Your task to perform on an android device: Open Chrome and go to the settings page Image 0: 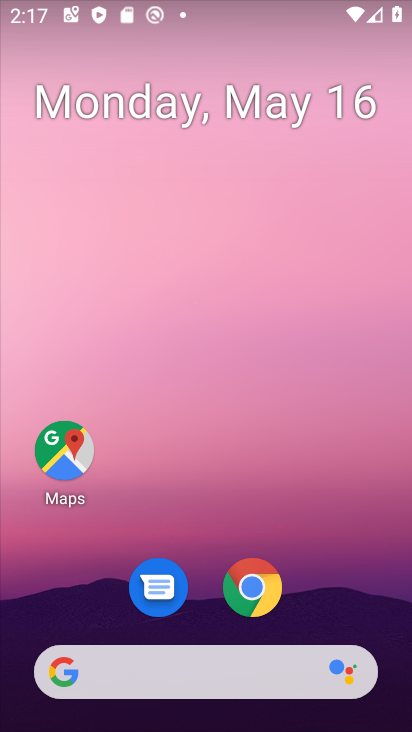
Step 0: drag from (227, 677) to (98, 273)
Your task to perform on an android device: Open Chrome and go to the settings page Image 1: 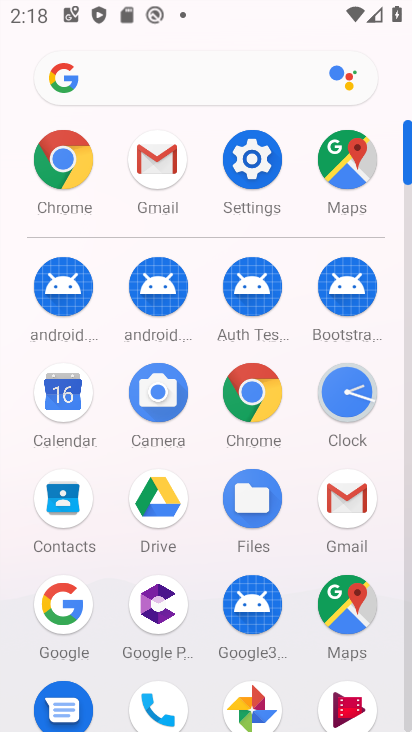
Step 1: click (49, 152)
Your task to perform on an android device: Open Chrome and go to the settings page Image 2: 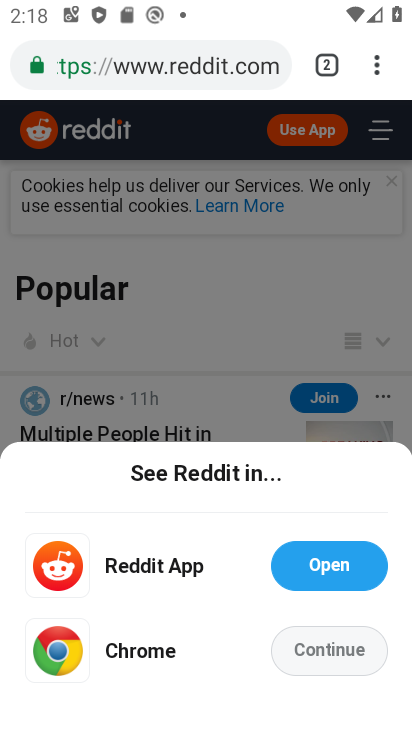
Step 2: click (379, 57)
Your task to perform on an android device: Open Chrome and go to the settings page Image 3: 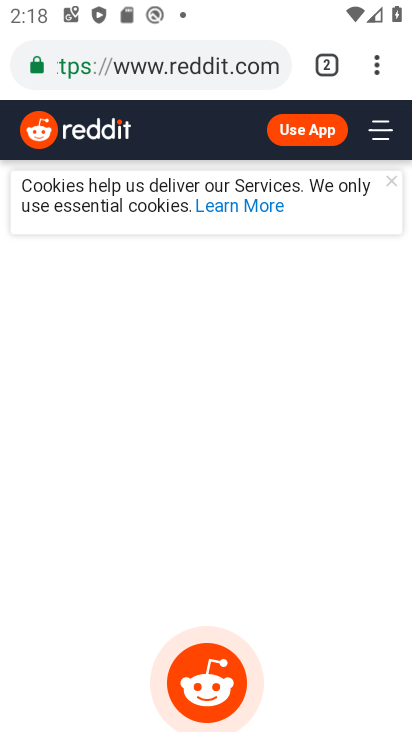
Step 3: press back button
Your task to perform on an android device: Open Chrome and go to the settings page Image 4: 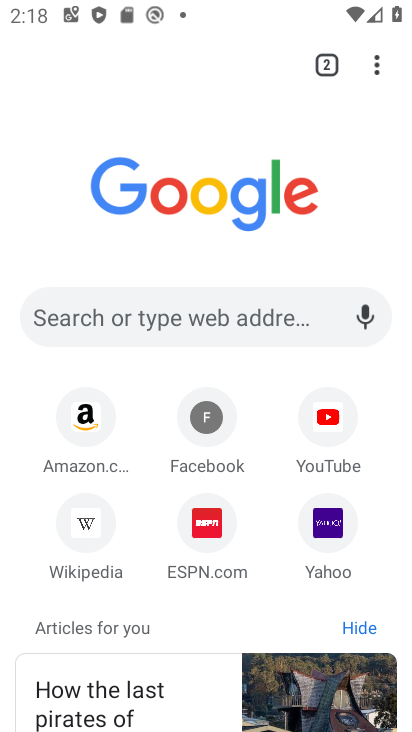
Step 4: click (369, 61)
Your task to perform on an android device: Open Chrome and go to the settings page Image 5: 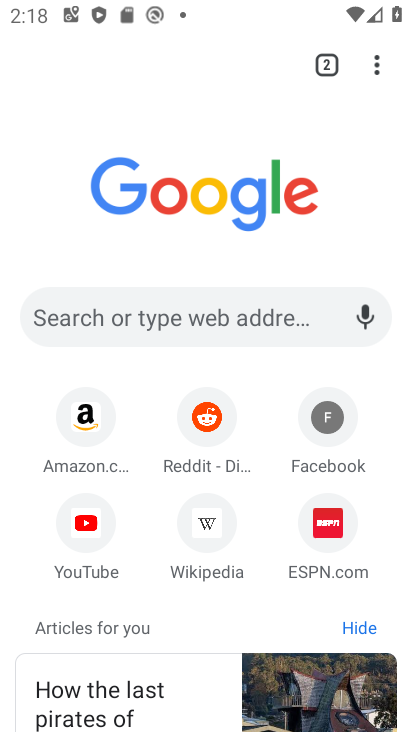
Step 5: drag from (374, 62) to (149, 549)
Your task to perform on an android device: Open Chrome and go to the settings page Image 6: 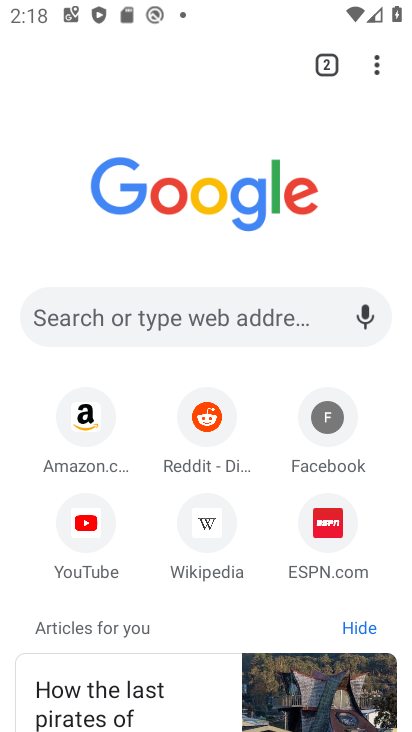
Step 6: click (149, 549)
Your task to perform on an android device: Open Chrome and go to the settings page Image 7: 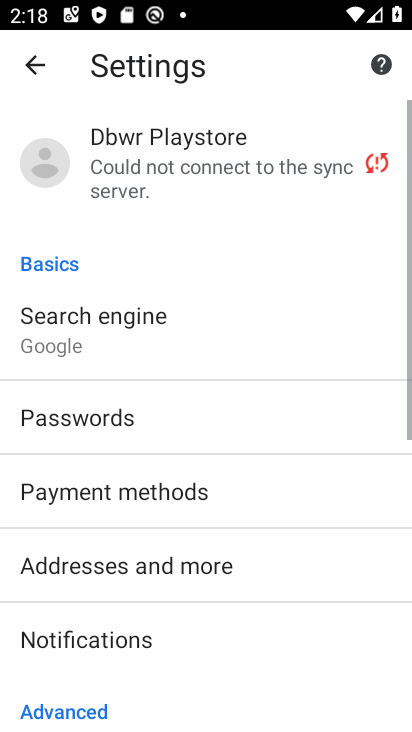
Step 7: task complete